Your task to perform on an android device: Search for pizza restaurants on Maps Image 0: 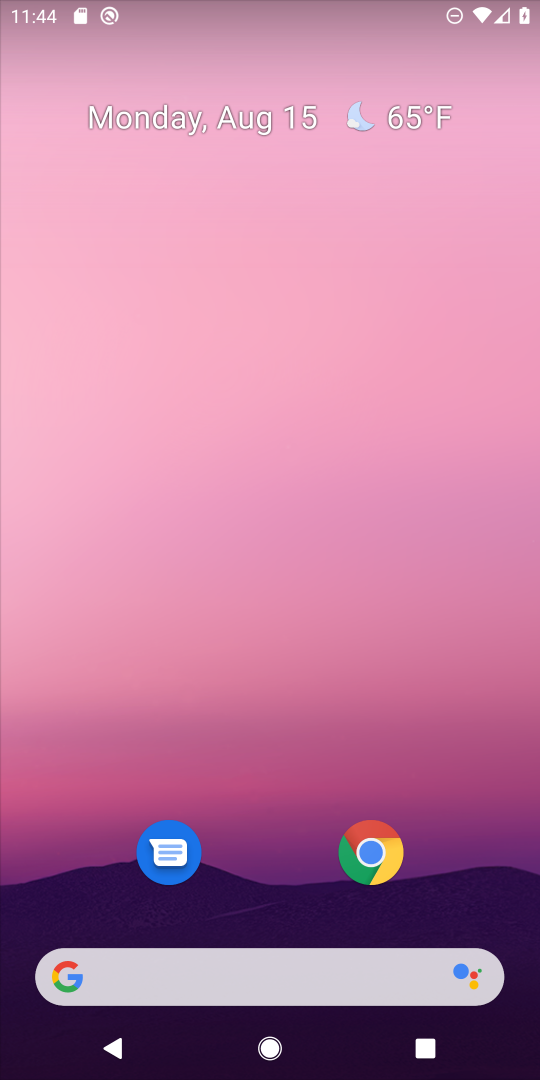
Step 0: drag from (281, 854) to (347, 0)
Your task to perform on an android device: Search for pizza restaurants on Maps Image 1: 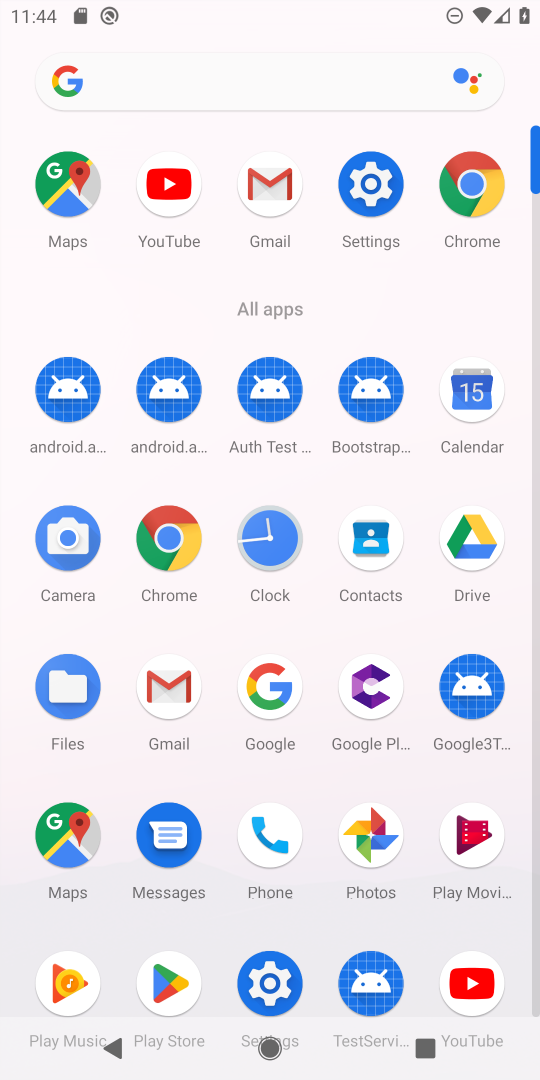
Step 1: click (63, 189)
Your task to perform on an android device: Search for pizza restaurants on Maps Image 2: 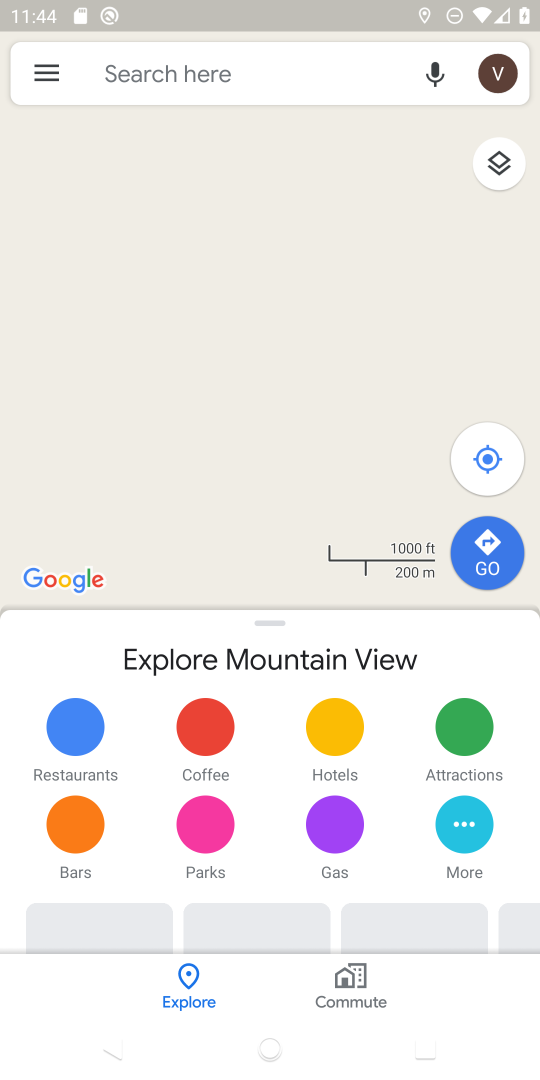
Step 2: click (208, 64)
Your task to perform on an android device: Search for pizza restaurants on Maps Image 3: 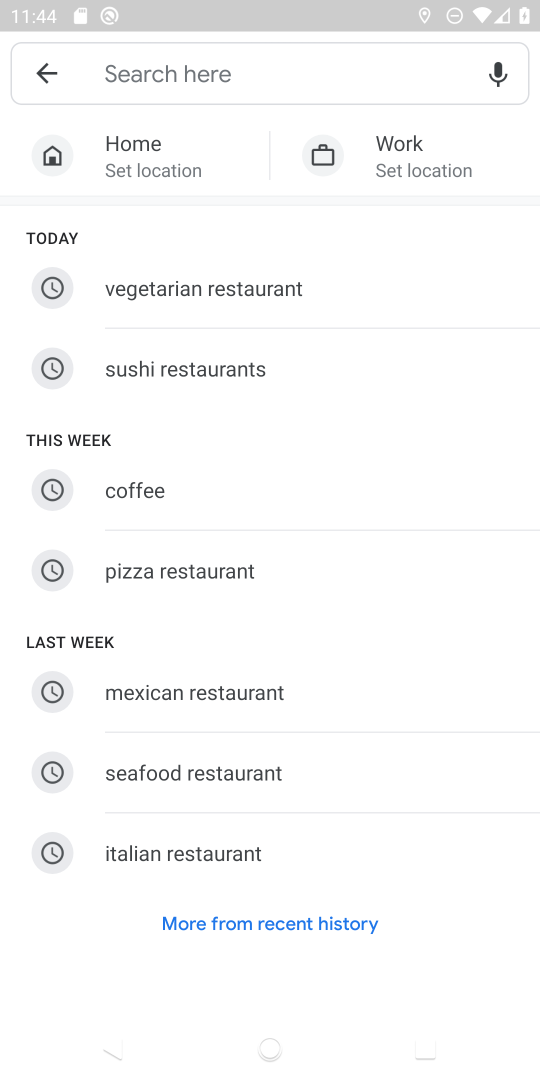
Step 3: click (211, 71)
Your task to perform on an android device: Search for pizza restaurants on Maps Image 4: 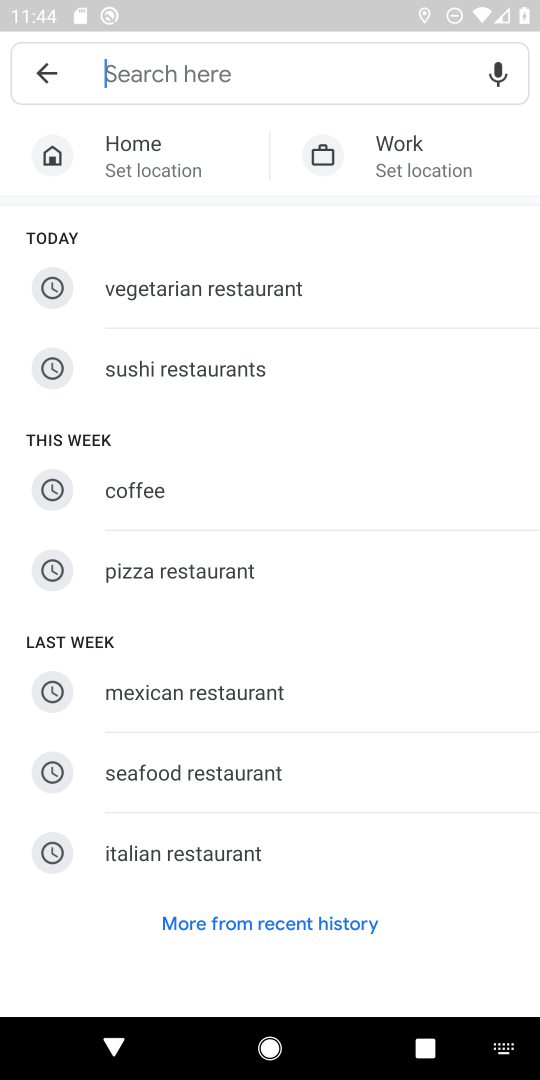
Step 4: click (170, 562)
Your task to perform on an android device: Search for pizza restaurants on Maps Image 5: 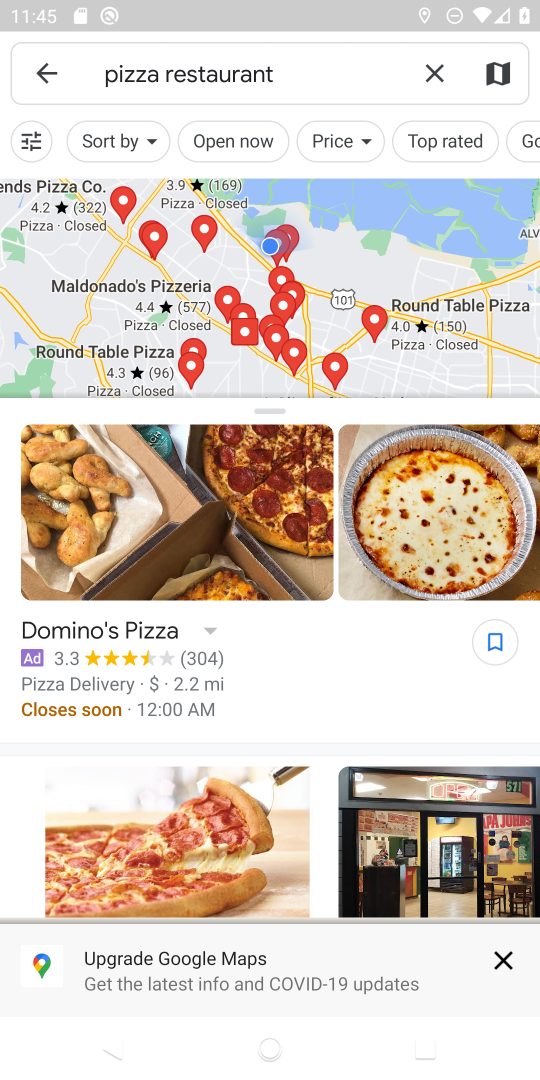
Step 5: task complete